Your task to perform on an android device: open app "Pandora - Music & Podcasts" Image 0: 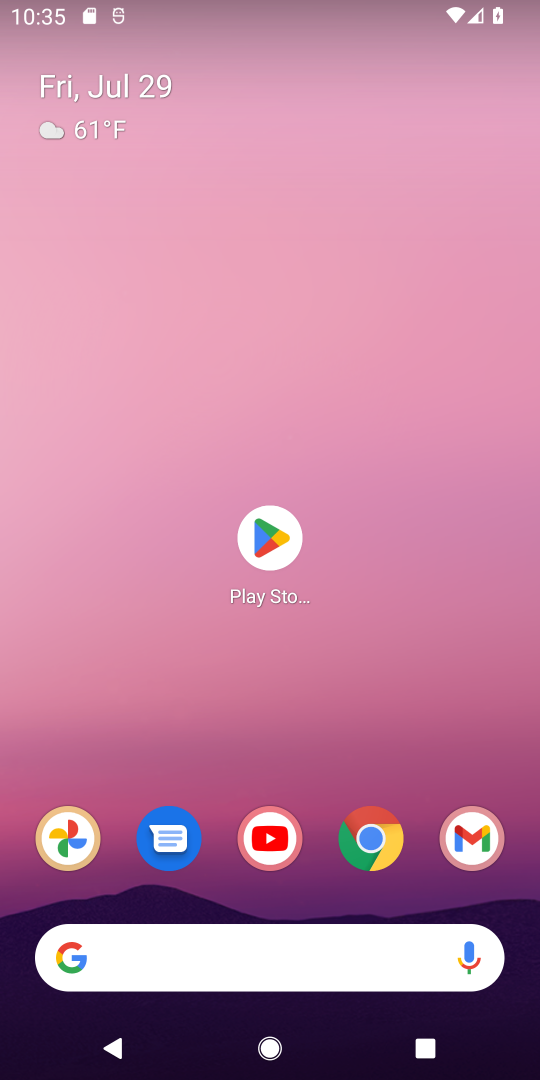
Step 0: press home button
Your task to perform on an android device: open app "Pandora - Music & Podcasts" Image 1: 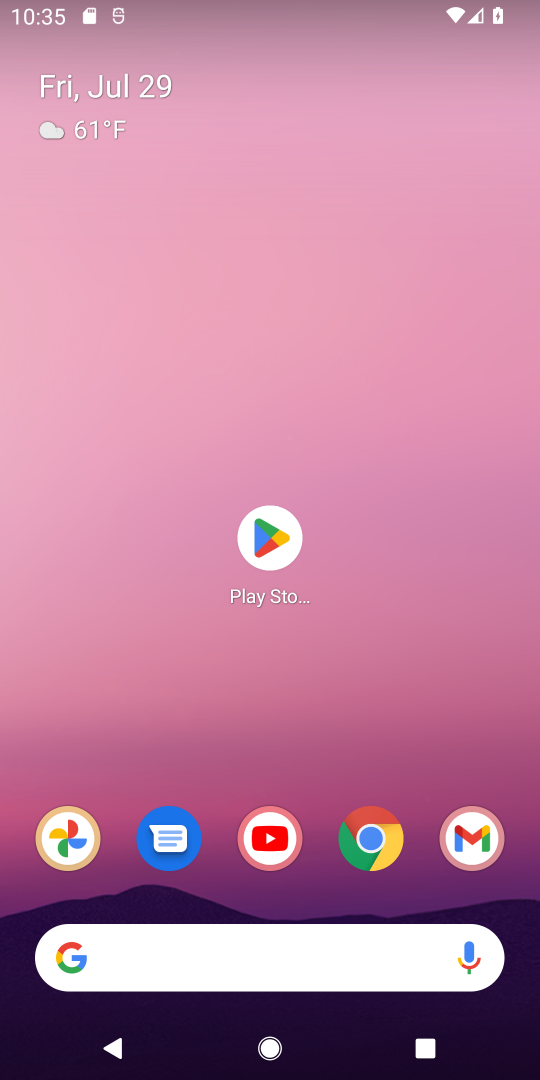
Step 1: click (272, 546)
Your task to perform on an android device: open app "Pandora - Music & Podcasts" Image 2: 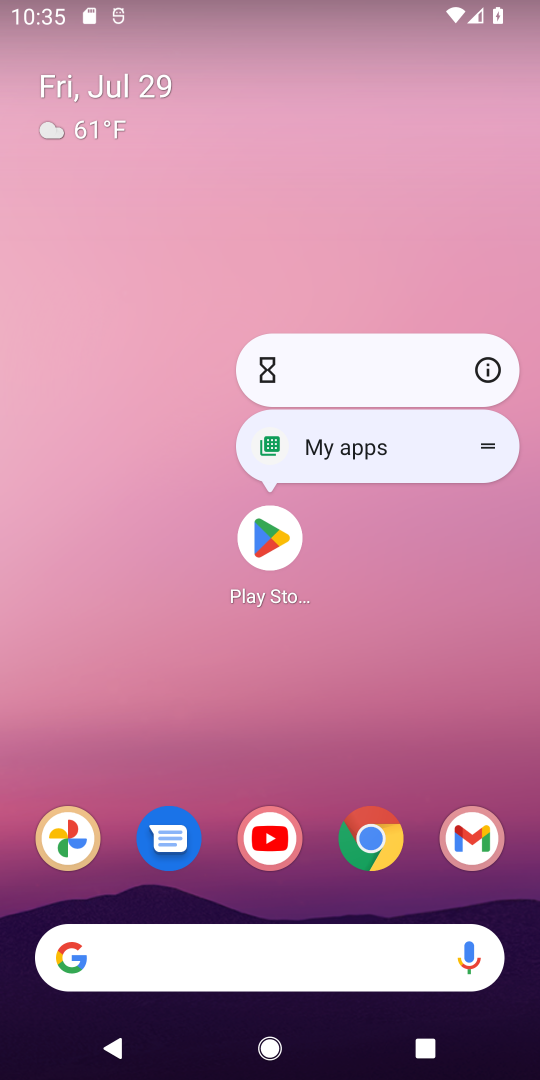
Step 2: click (259, 532)
Your task to perform on an android device: open app "Pandora - Music & Podcasts" Image 3: 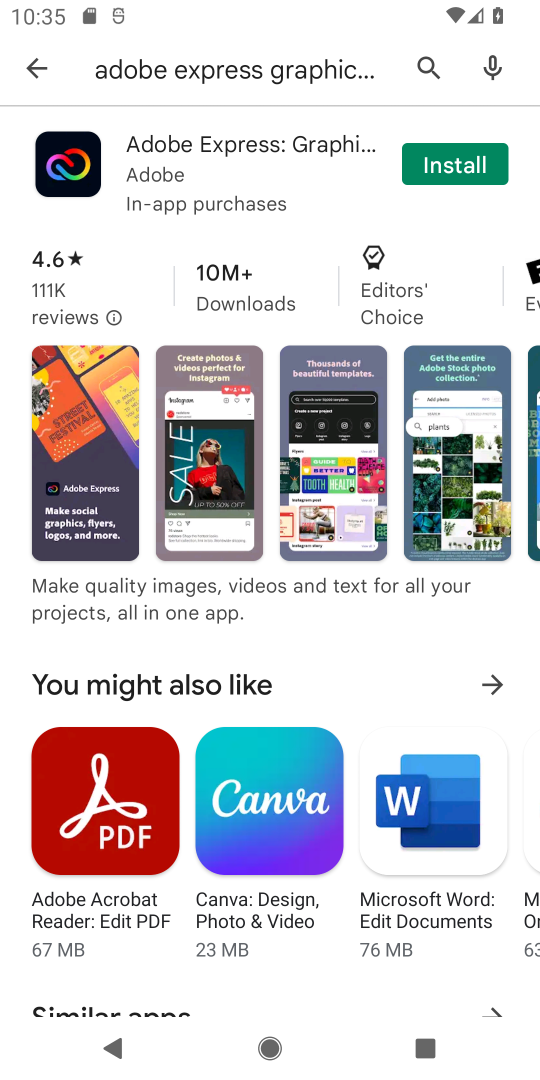
Step 3: click (429, 58)
Your task to perform on an android device: open app "Pandora - Music & Podcasts" Image 4: 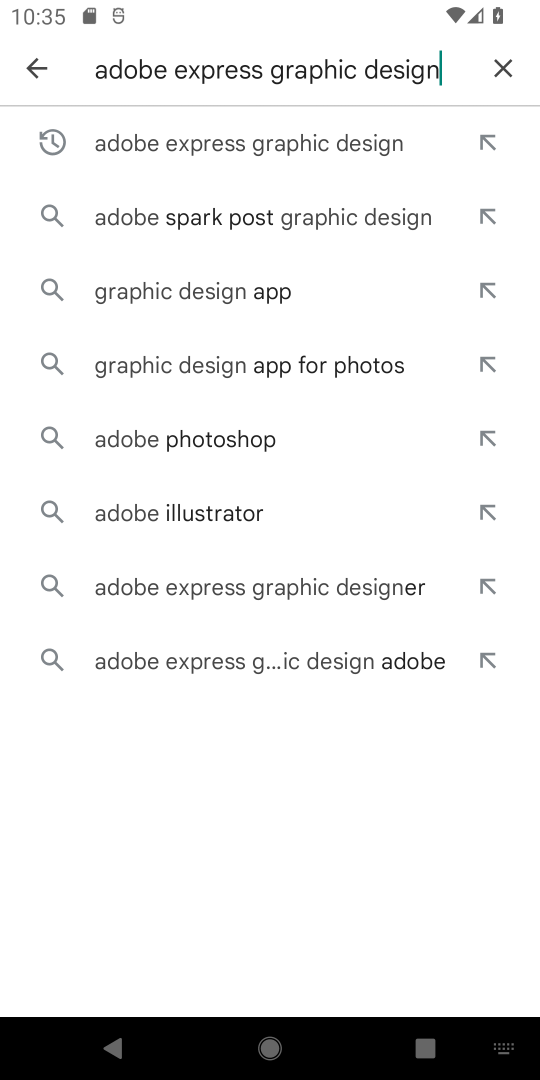
Step 4: click (504, 66)
Your task to perform on an android device: open app "Pandora - Music & Podcasts" Image 5: 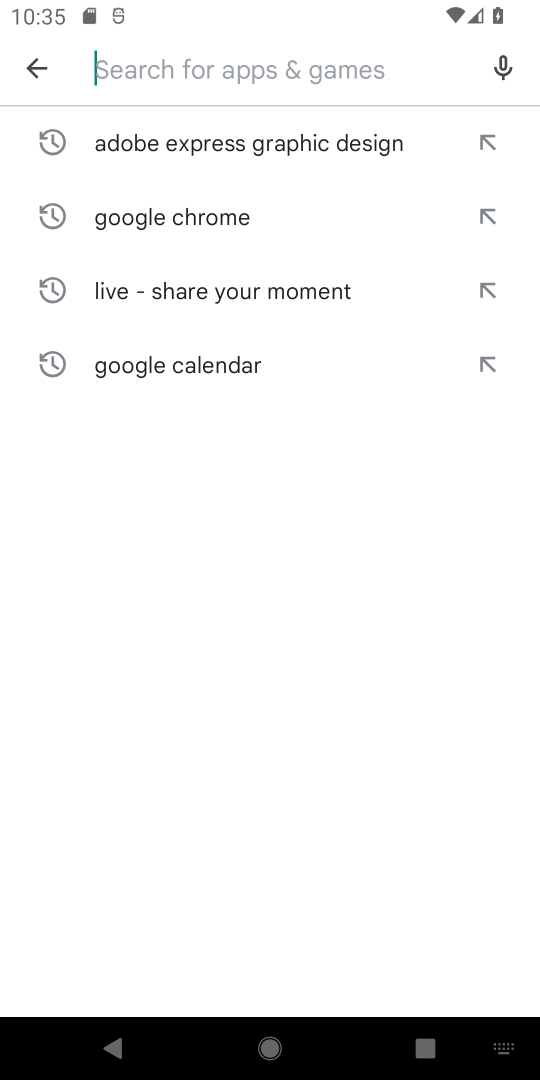
Step 5: type "Pandora - Music & Podcasts"
Your task to perform on an android device: open app "Pandora - Music & Podcasts" Image 6: 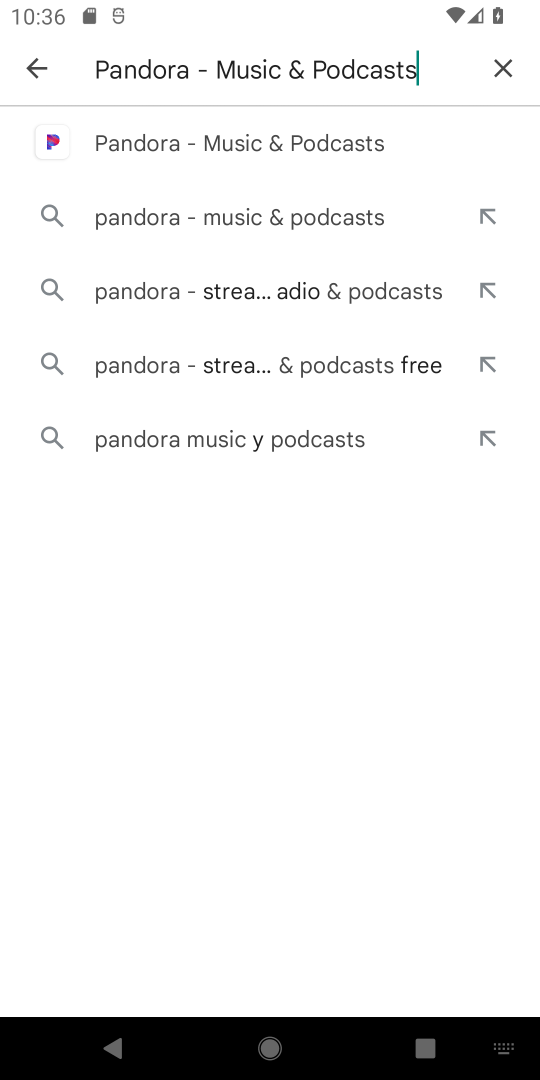
Step 6: click (257, 143)
Your task to perform on an android device: open app "Pandora - Music & Podcasts" Image 7: 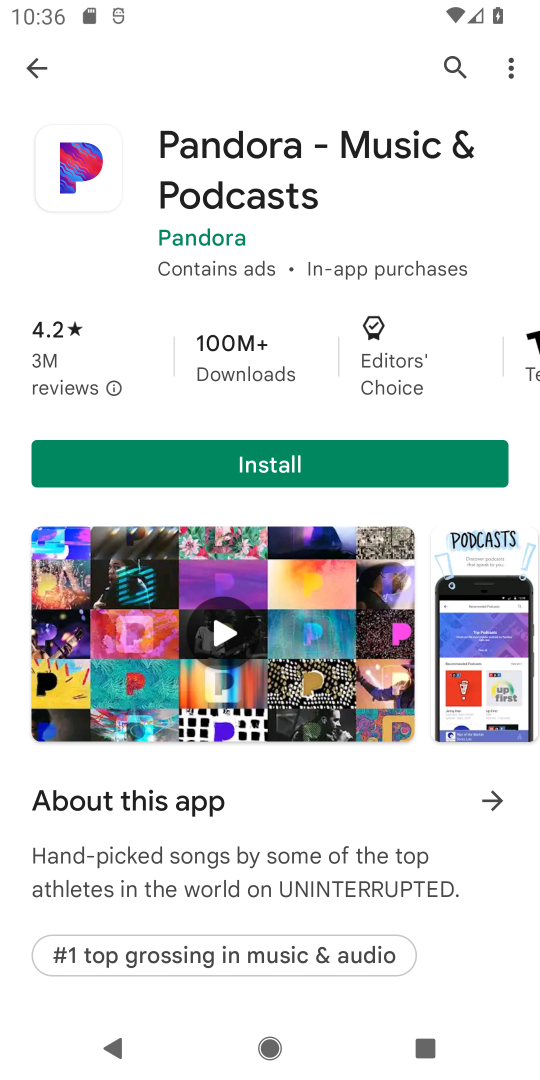
Step 7: task complete